Your task to perform on an android device: Do I have any events today? Image 0: 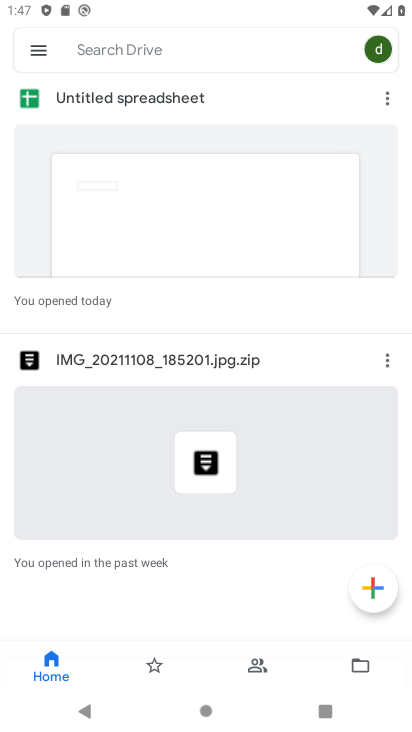
Step 0: press home button
Your task to perform on an android device: Do I have any events today? Image 1: 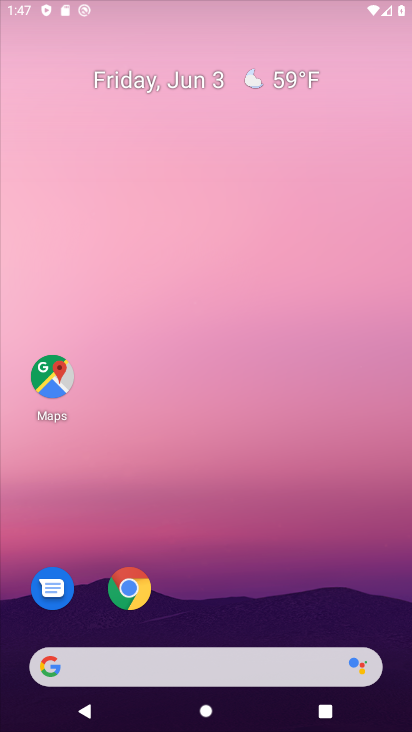
Step 1: drag from (137, 727) to (183, 69)
Your task to perform on an android device: Do I have any events today? Image 2: 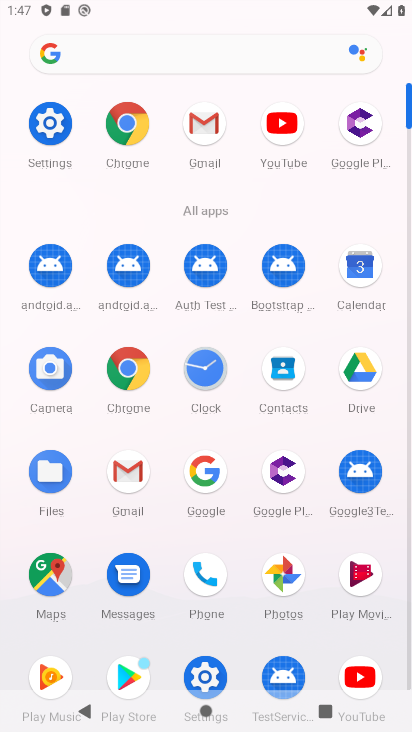
Step 2: click (352, 268)
Your task to perform on an android device: Do I have any events today? Image 3: 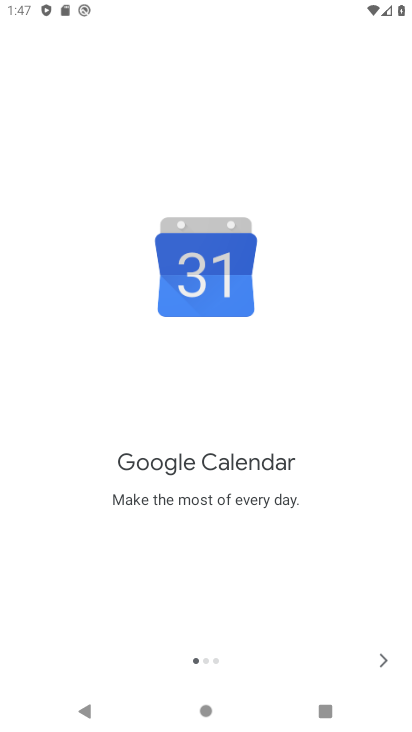
Step 3: click (391, 668)
Your task to perform on an android device: Do I have any events today? Image 4: 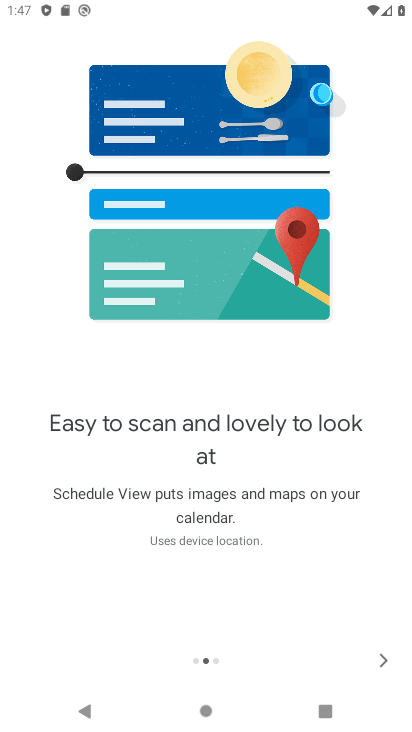
Step 4: click (378, 664)
Your task to perform on an android device: Do I have any events today? Image 5: 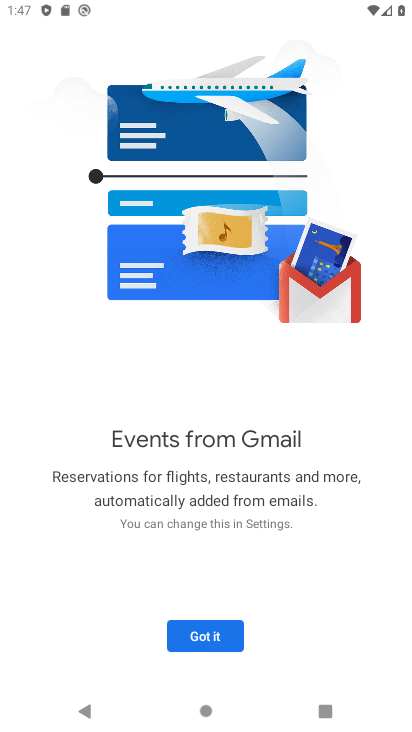
Step 5: click (378, 664)
Your task to perform on an android device: Do I have any events today? Image 6: 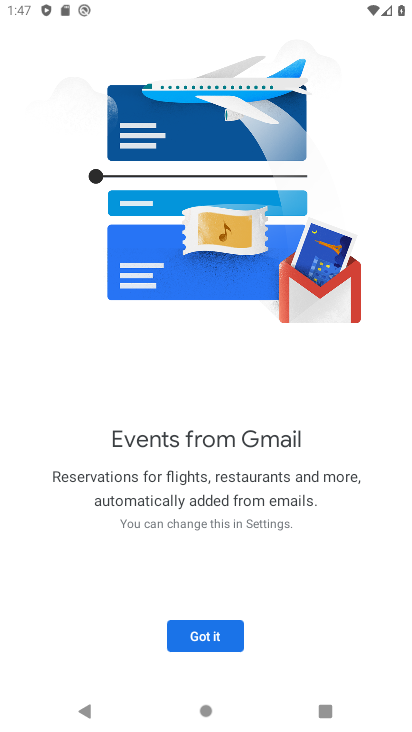
Step 6: click (199, 628)
Your task to perform on an android device: Do I have any events today? Image 7: 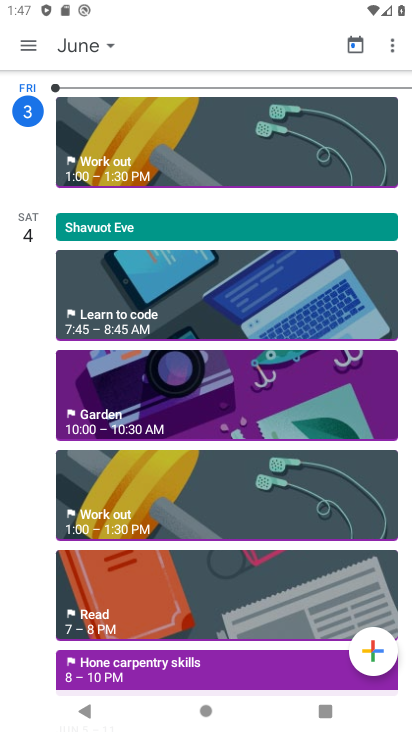
Step 7: click (212, 152)
Your task to perform on an android device: Do I have any events today? Image 8: 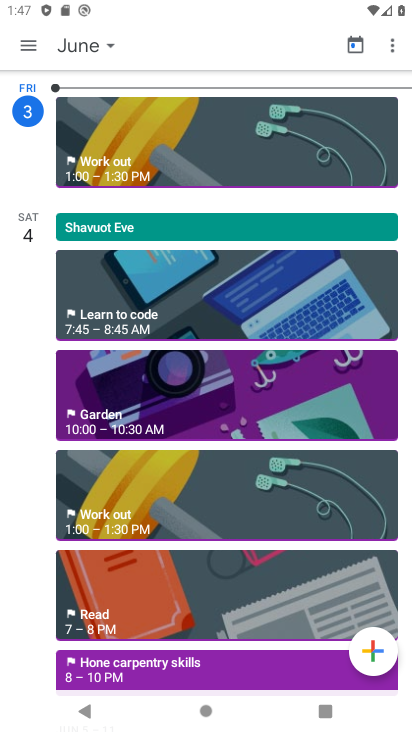
Step 8: click (108, 156)
Your task to perform on an android device: Do I have any events today? Image 9: 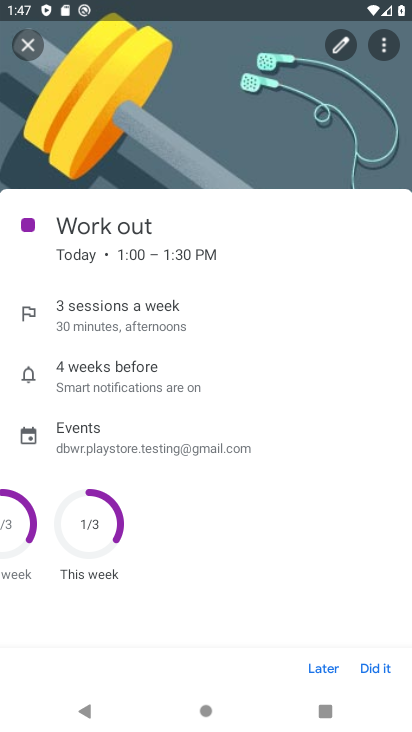
Step 9: task complete